Your task to perform on an android device: Open Amazon Image 0: 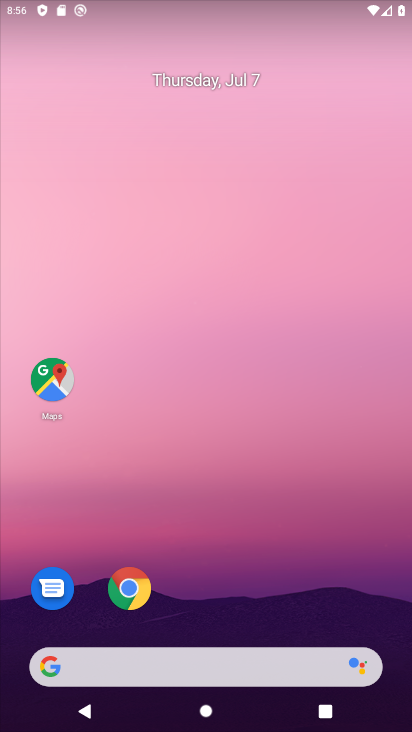
Step 0: click (133, 597)
Your task to perform on an android device: Open Amazon Image 1: 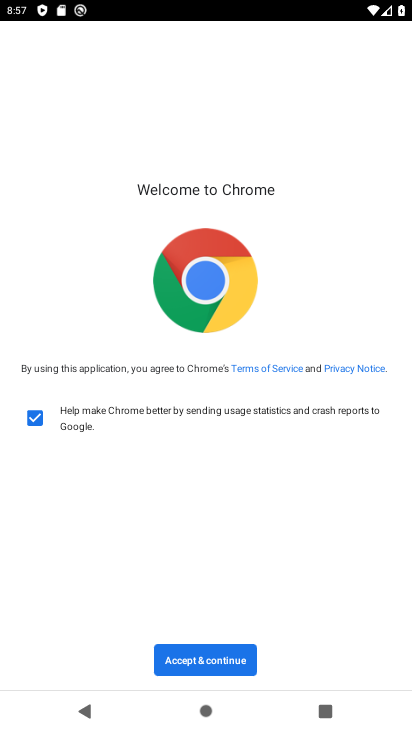
Step 1: click (184, 649)
Your task to perform on an android device: Open Amazon Image 2: 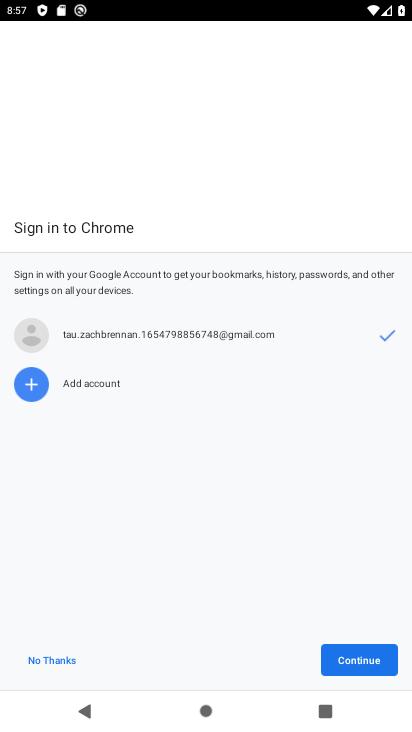
Step 2: click (326, 668)
Your task to perform on an android device: Open Amazon Image 3: 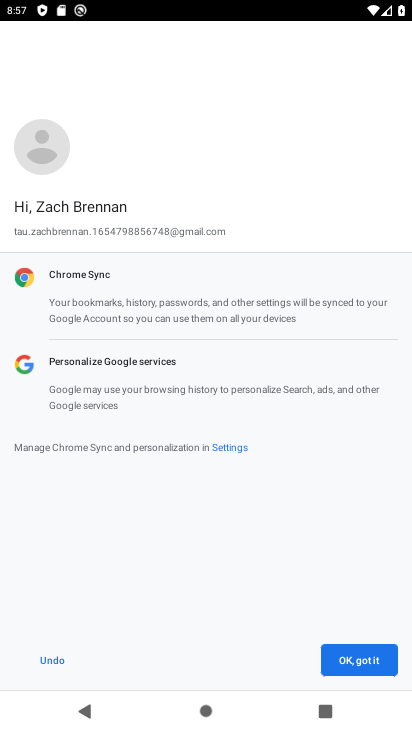
Step 3: click (370, 666)
Your task to perform on an android device: Open Amazon Image 4: 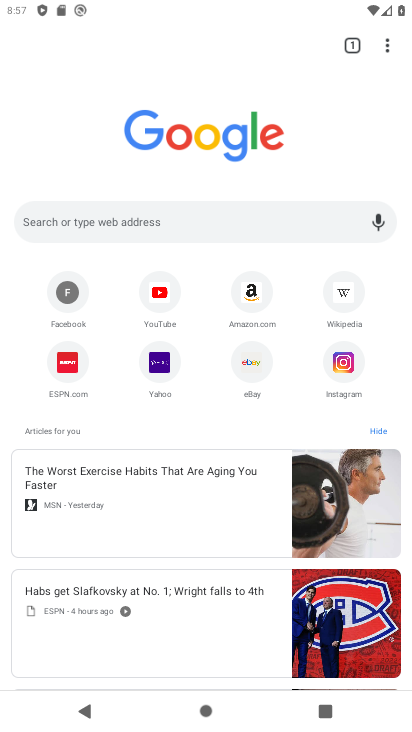
Step 4: click (260, 295)
Your task to perform on an android device: Open Amazon Image 5: 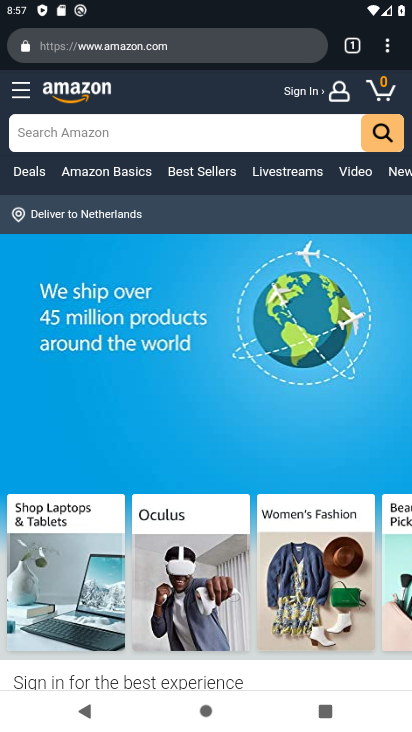
Step 5: task complete